Your task to perform on an android device: Is it going to rain tomorrow? Image 0: 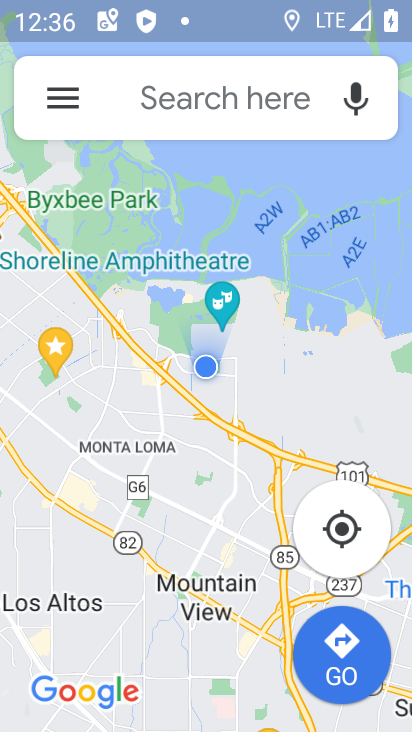
Step 0: press back button
Your task to perform on an android device: Is it going to rain tomorrow? Image 1: 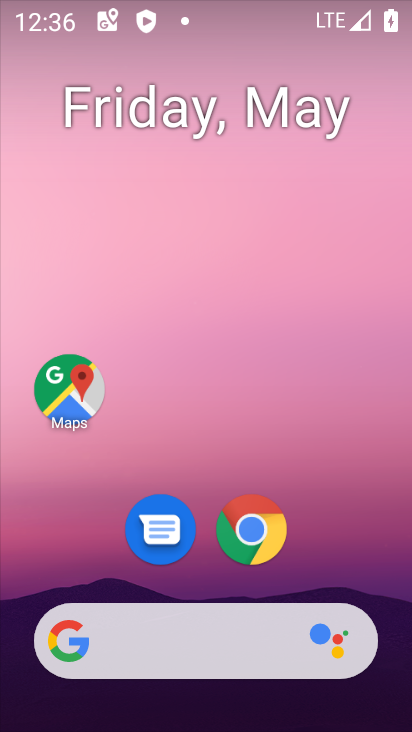
Step 1: click (237, 520)
Your task to perform on an android device: Is it going to rain tomorrow? Image 2: 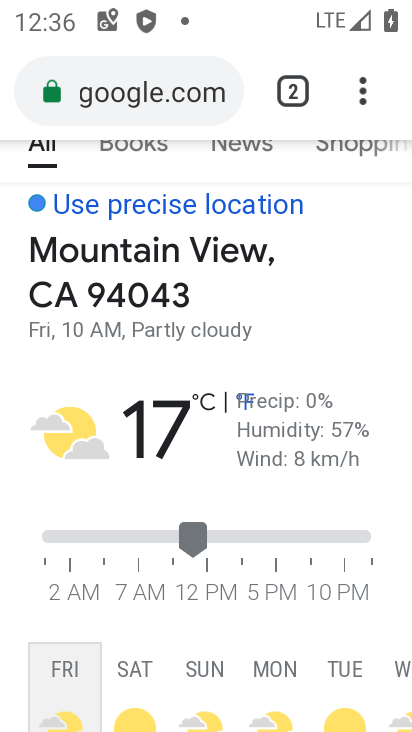
Step 2: drag from (202, 247) to (179, 549)
Your task to perform on an android device: Is it going to rain tomorrow? Image 3: 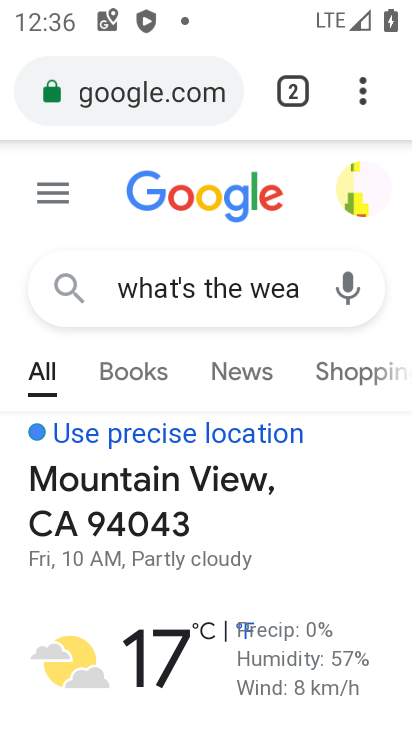
Step 3: click (221, 290)
Your task to perform on an android device: Is it going to rain tomorrow? Image 4: 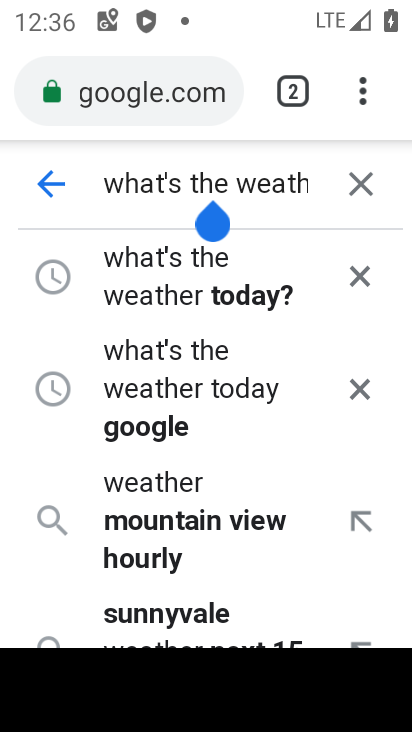
Step 4: drag from (259, 532) to (244, 251)
Your task to perform on an android device: Is it going to rain tomorrow? Image 5: 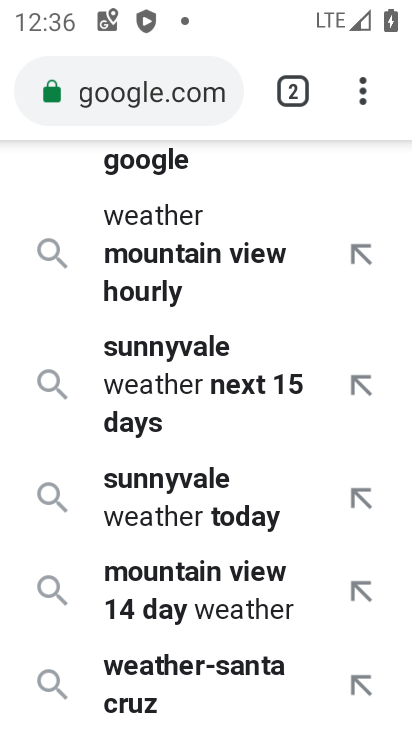
Step 5: click (190, 659)
Your task to perform on an android device: Is it going to rain tomorrow? Image 6: 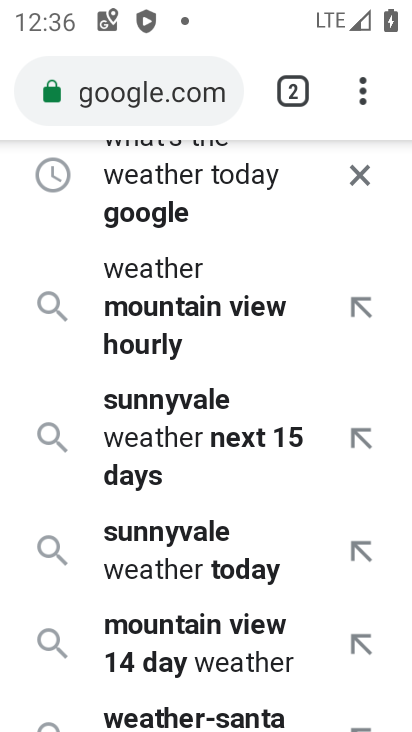
Step 6: drag from (220, 262) to (211, 636)
Your task to perform on an android device: Is it going to rain tomorrow? Image 7: 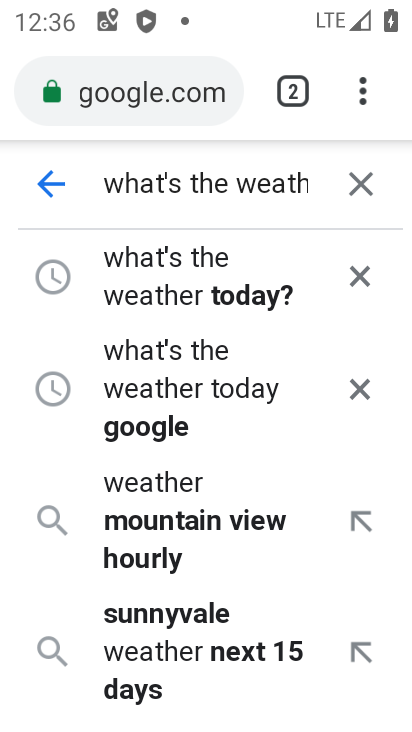
Step 7: drag from (265, 205) to (218, 596)
Your task to perform on an android device: Is it going to rain tomorrow? Image 8: 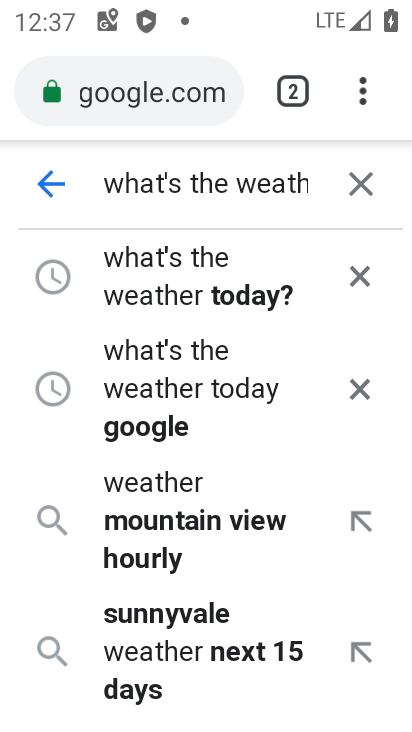
Step 8: click (342, 189)
Your task to perform on an android device: Is it going to rain tomorrow? Image 9: 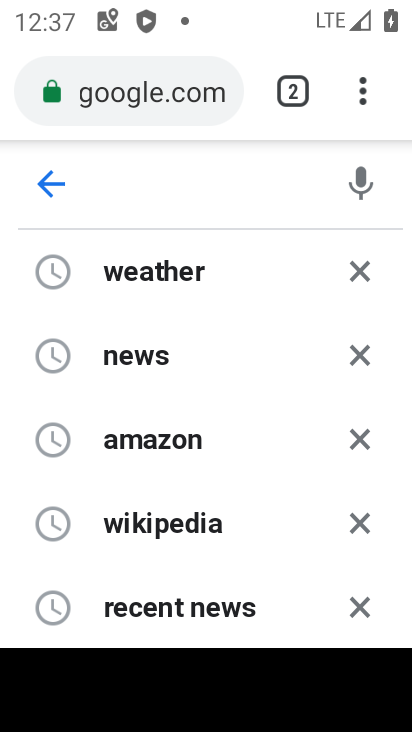
Step 9: click (124, 163)
Your task to perform on an android device: Is it going to rain tomorrow? Image 10: 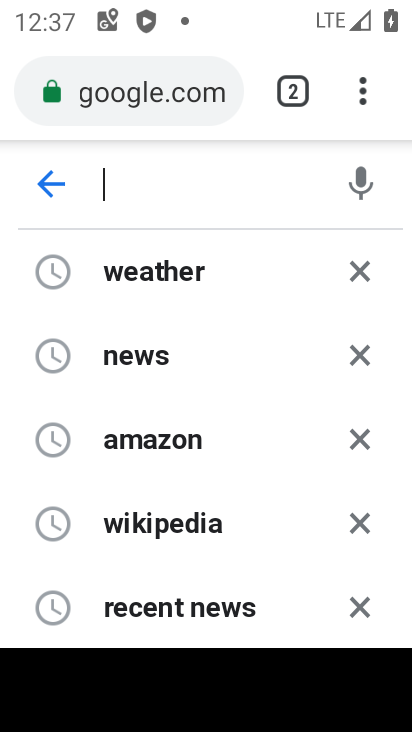
Step 10: type "is it going to rain tomorrow"
Your task to perform on an android device: Is it going to rain tomorrow? Image 11: 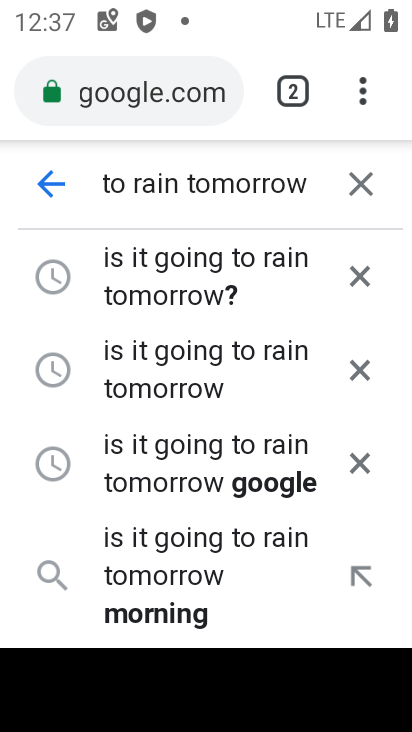
Step 11: click (137, 248)
Your task to perform on an android device: Is it going to rain tomorrow? Image 12: 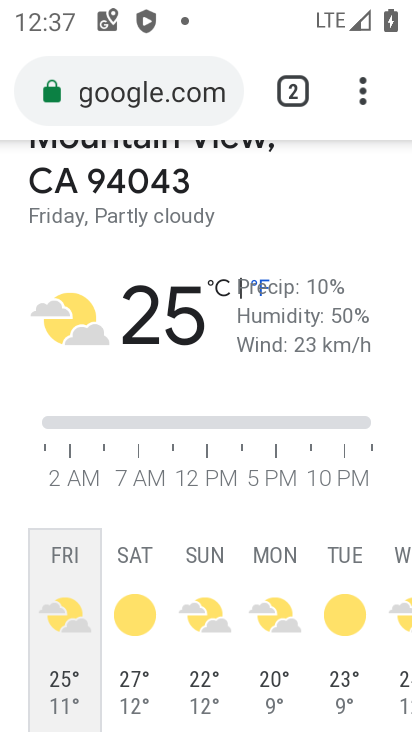
Step 12: task complete